Your task to perform on an android device: allow notifications from all sites in the chrome app Image 0: 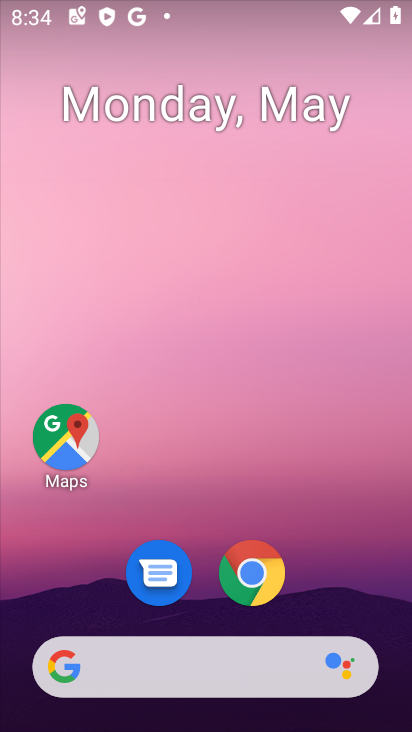
Step 0: click (270, 591)
Your task to perform on an android device: allow notifications from all sites in the chrome app Image 1: 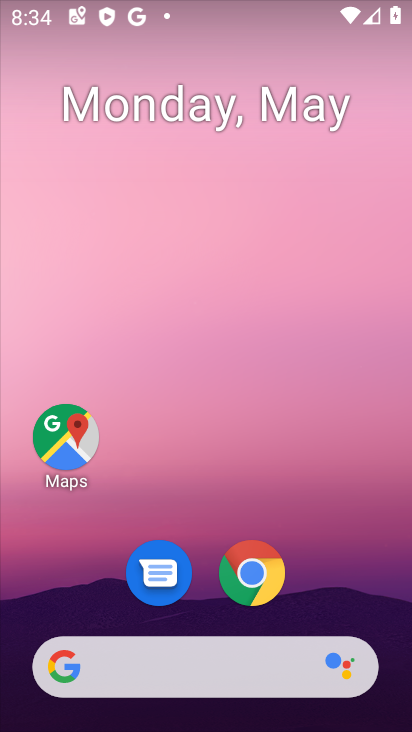
Step 1: click (256, 562)
Your task to perform on an android device: allow notifications from all sites in the chrome app Image 2: 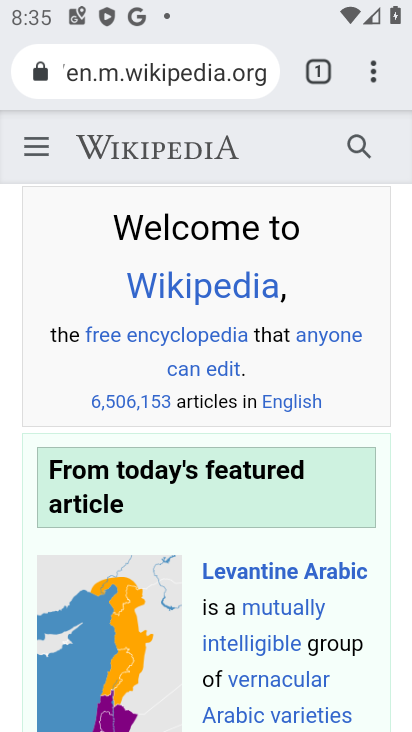
Step 2: click (369, 70)
Your task to perform on an android device: allow notifications from all sites in the chrome app Image 3: 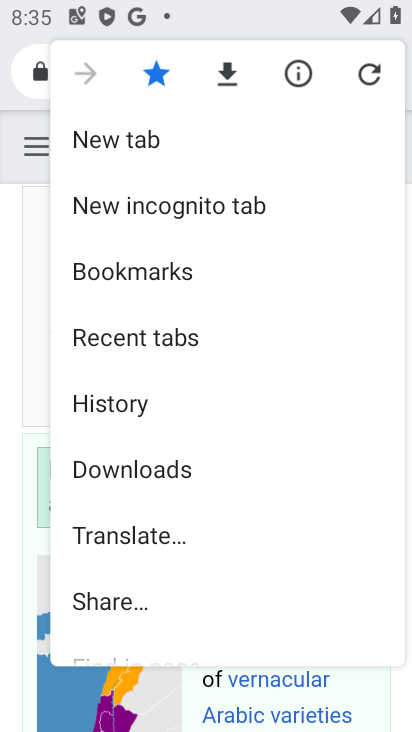
Step 3: drag from (284, 479) to (278, 351)
Your task to perform on an android device: allow notifications from all sites in the chrome app Image 4: 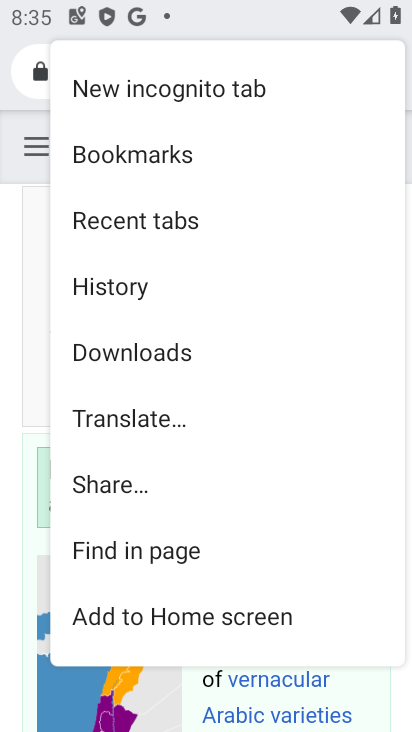
Step 4: drag from (231, 626) to (198, 457)
Your task to perform on an android device: allow notifications from all sites in the chrome app Image 5: 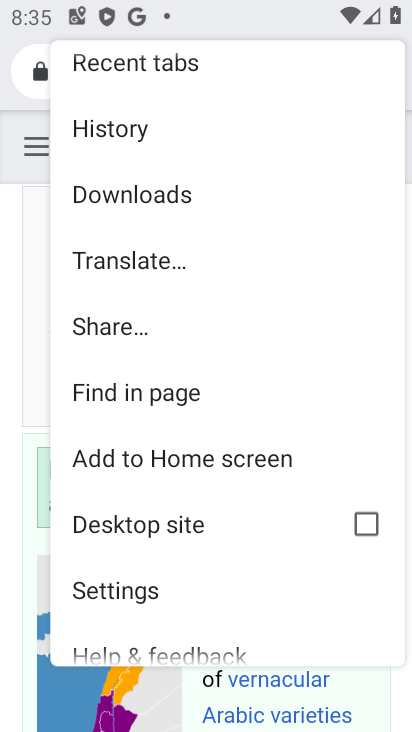
Step 5: click (161, 584)
Your task to perform on an android device: allow notifications from all sites in the chrome app Image 6: 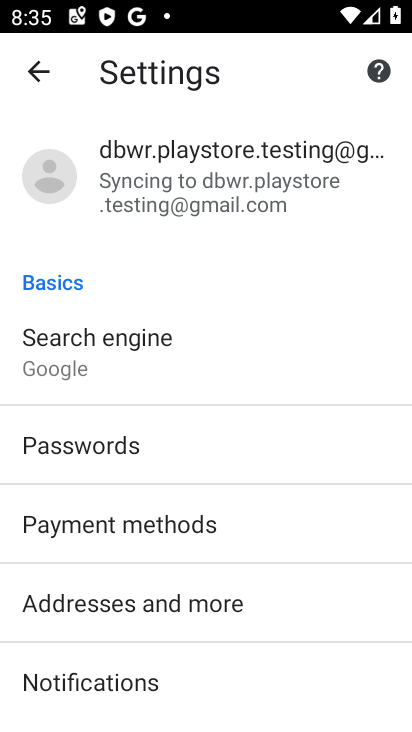
Step 6: drag from (160, 598) to (142, 454)
Your task to perform on an android device: allow notifications from all sites in the chrome app Image 7: 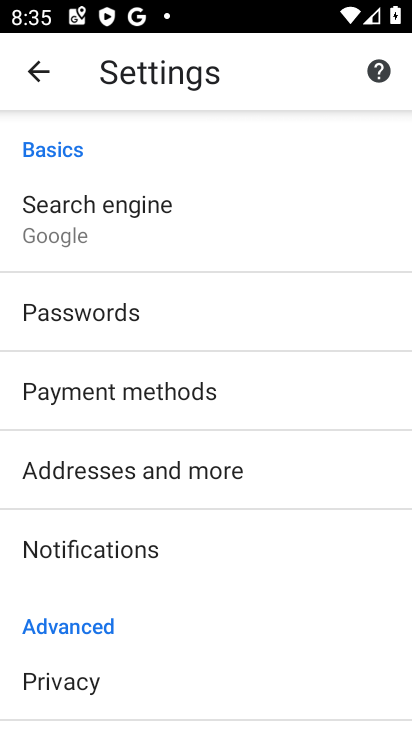
Step 7: click (153, 549)
Your task to perform on an android device: allow notifications from all sites in the chrome app Image 8: 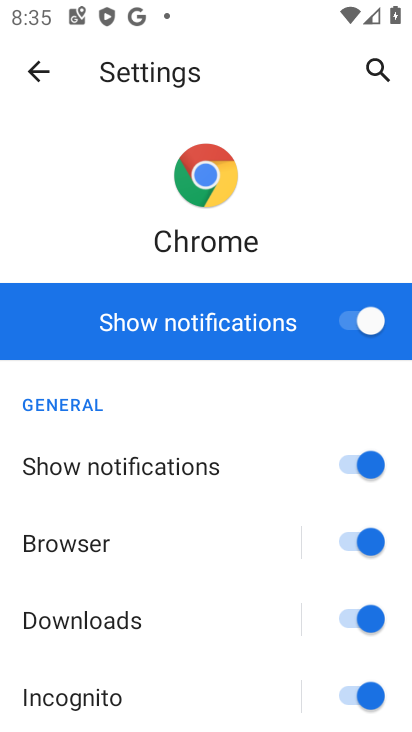
Step 8: task complete